Your task to perform on an android device: turn off improve location accuracy Image 0: 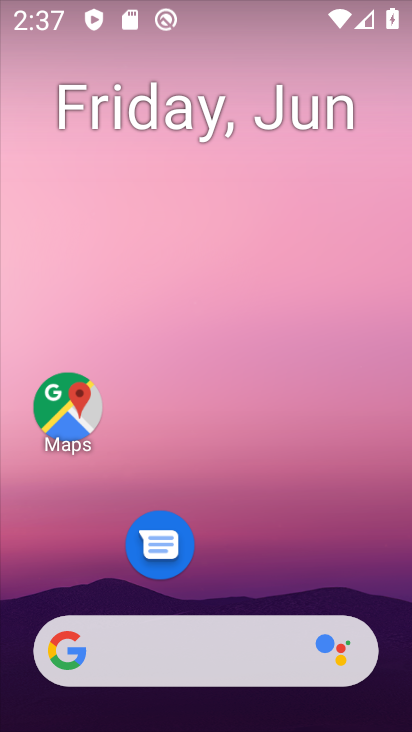
Step 0: drag from (248, 578) to (296, 7)
Your task to perform on an android device: turn off improve location accuracy Image 1: 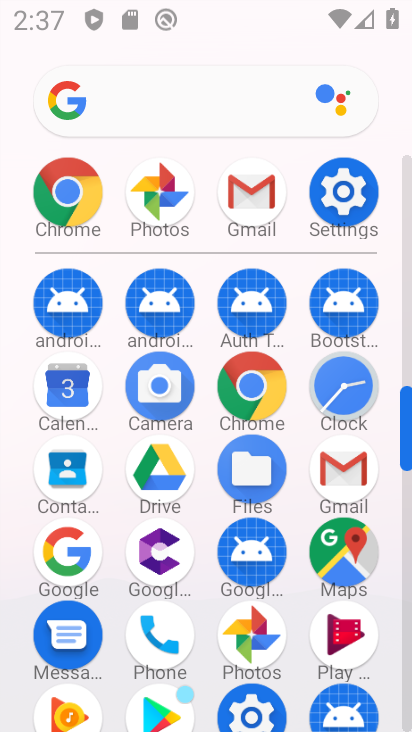
Step 1: drag from (239, 578) to (292, 8)
Your task to perform on an android device: turn off improve location accuracy Image 2: 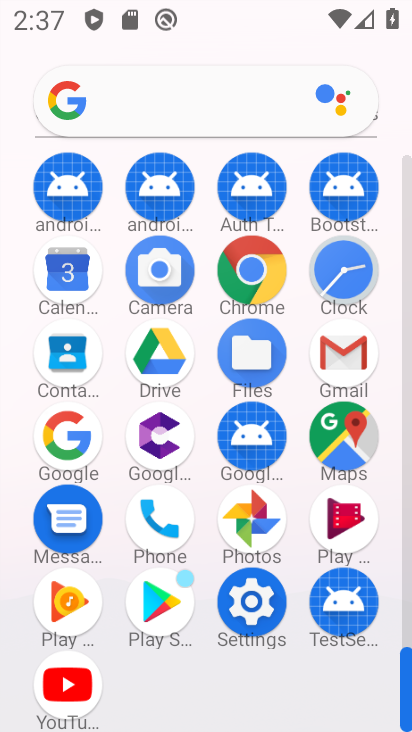
Step 2: click (342, 348)
Your task to perform on an android device: turn off improve location accuracy Image 3: 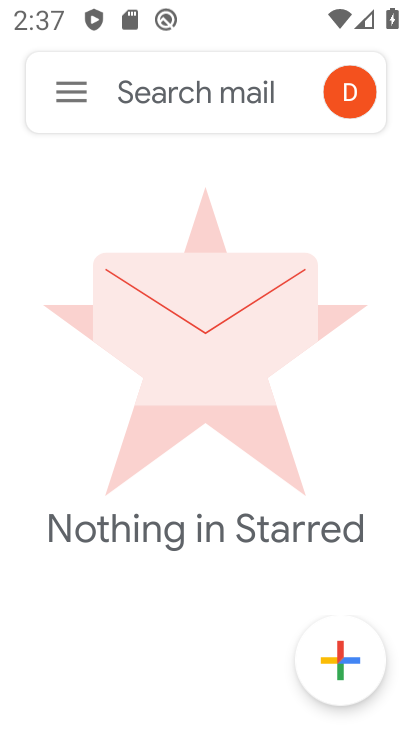
Step 3: click (70, 103)
Your task to perform on an android device: turn off improve location accuracy Image 4: 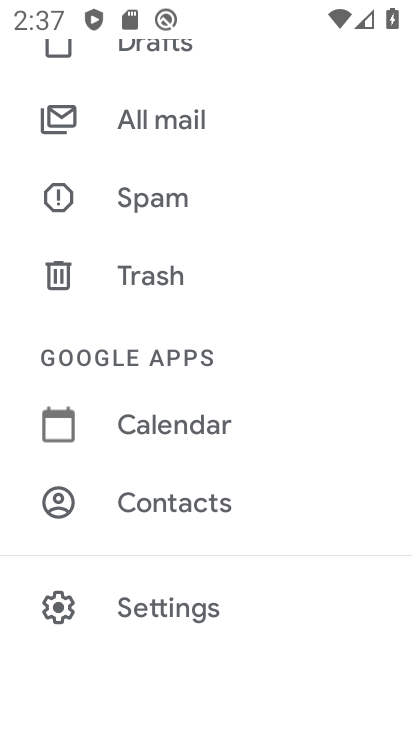
Step 4: click (153, 615)
Your task to perform on an android device: turn off improve location accuracy Image 5: 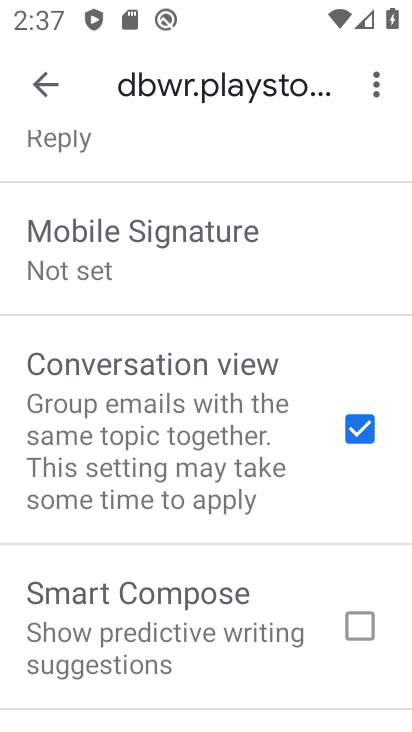
Step 5: press home button
Your task to perform on an android device: turn off improve location accuracy Image 6: 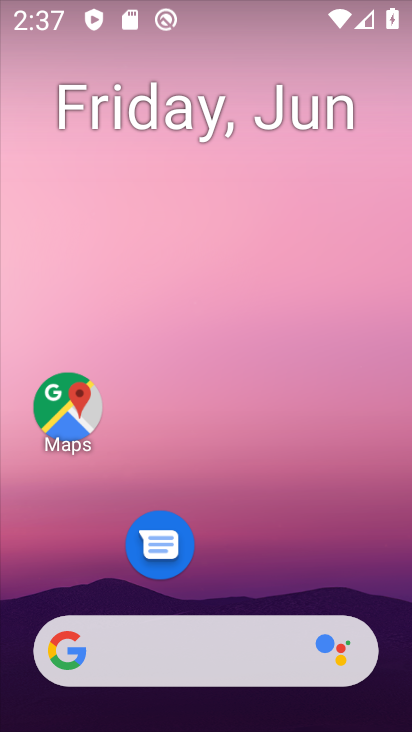
Step 6: drag from (252, 583) to (315, 14)
Your task to perform on an android device: turn off improve location accuracy Image 7: 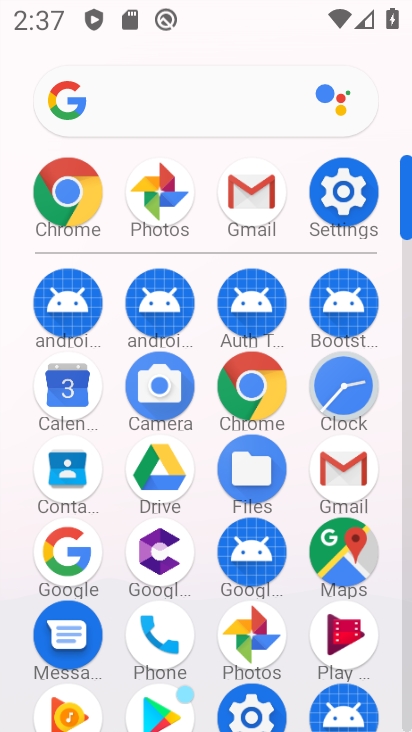
Step 7: drag from (194, 604) to (199, 161)
Your task to perform on an android device: turn off improve location accuracy Image 8: 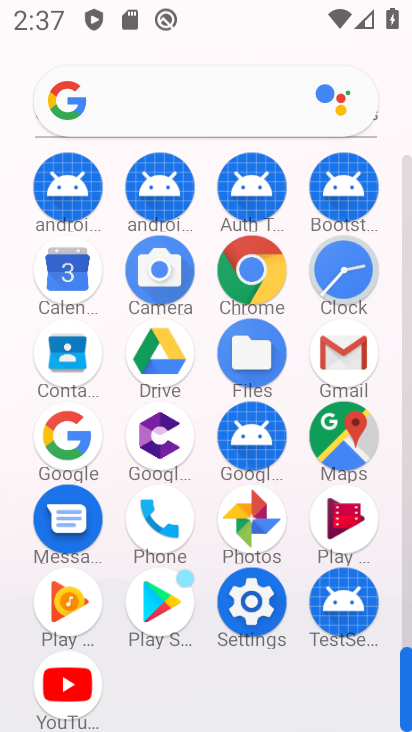
Step 8: click (262, 640)
Your task to perform on an android device: turn off improve location accuracy Image 9: 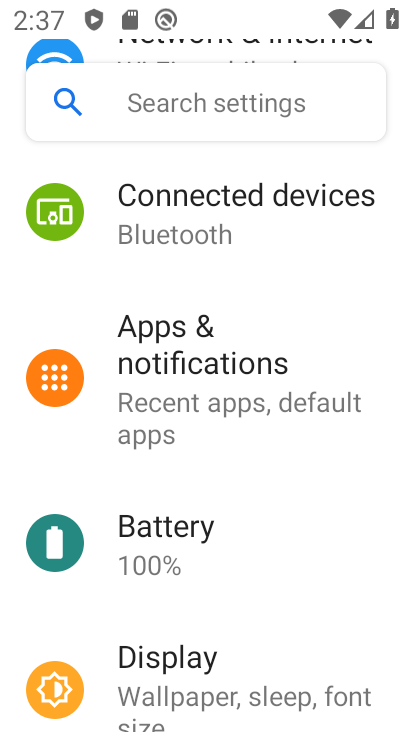
Step 9: drag from (241, 593) to (268, 219)
Your task to perform on an android device: turn off improve location accuracy Image 10: 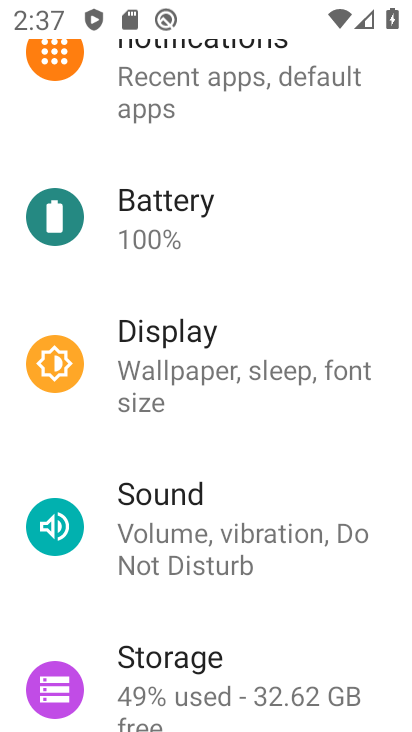
Step 10: drag from (209, 609) to (242, 187)
Your task to perform on an android device: turn off improve location accuracy Image 11: 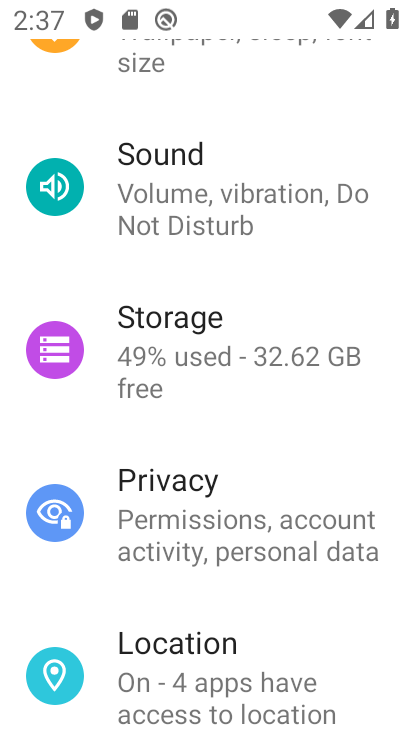
Step 11: drag from (216, 650) to (246, 414)
Your task to perform on an android device: turn off improve location accuracy Image 12: 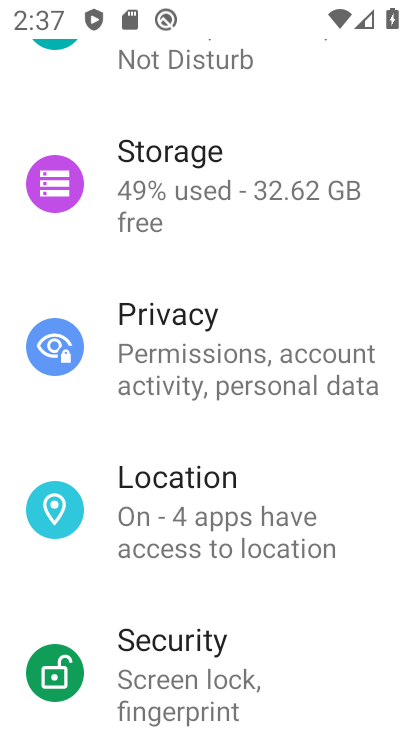
Step 12: click (190, 527)
Your task to perform on an android device: turn off improve location accuracy Image 13: 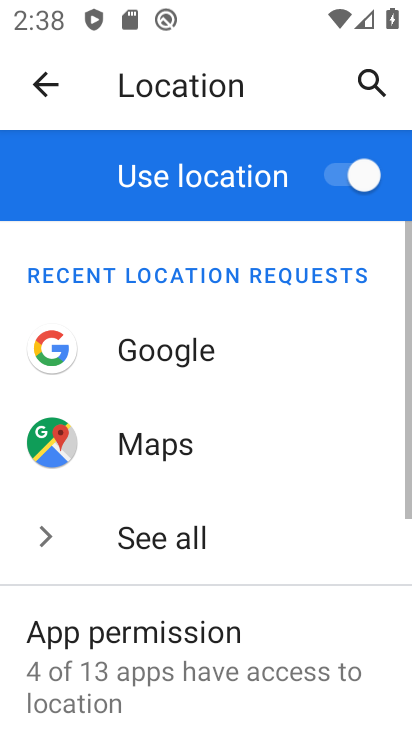
Step 13: drag from (165, 650) to (310, 96)
Your task to perform on an android device: turn off improve location accuracy Image 14: 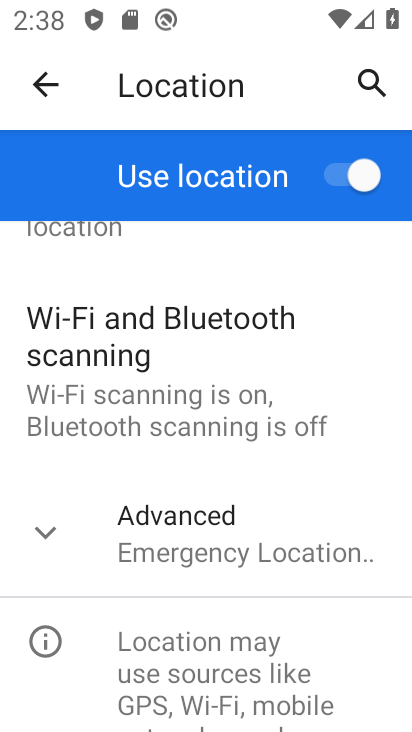
Step 14: drag from (264, 594) to (296, 395)
Your task to perform on an android device: turn off improve location accuracy Image 15: 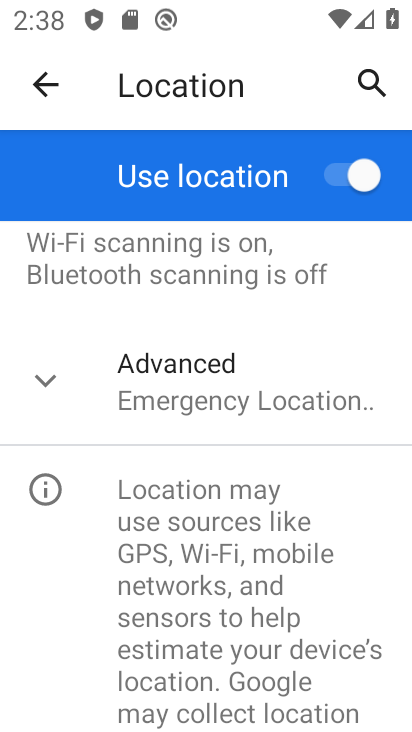
Step 15: click (144, 531)
Your task to perform on an android device: turn off improve location accuracy Image 16: 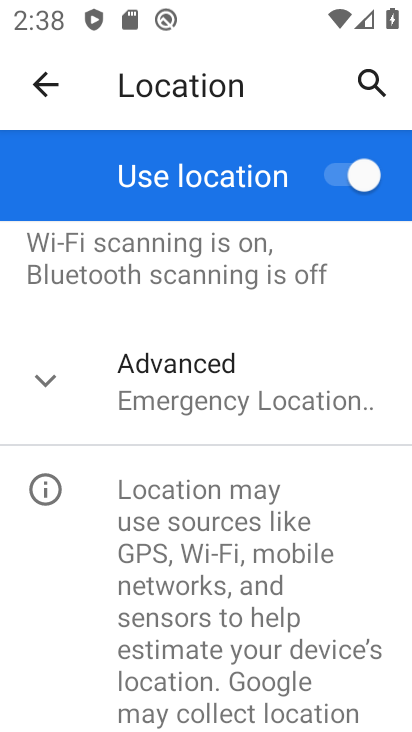
Step 16: click (204, 396)
Your task to perform on an android device: turn off improve location accuracy Image 17: 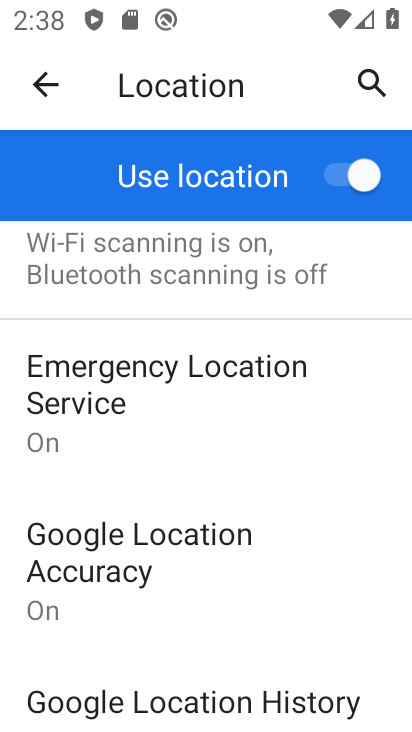
Step 17: click (174, 566)
Your task to perform on an android device: turn off improve location accuracy Image 18: 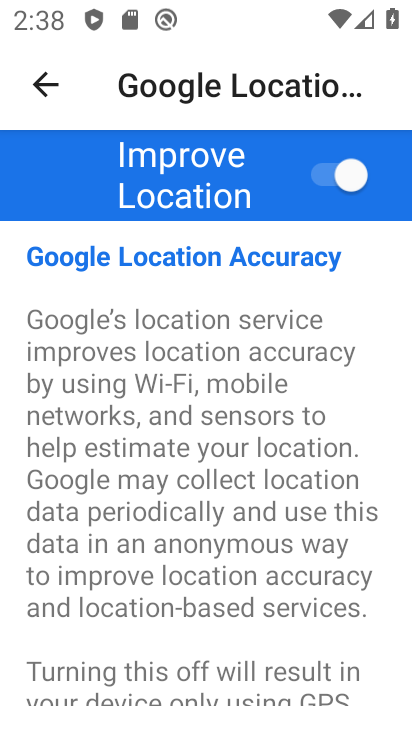
Step 18: click (334, 183)
Your task to perform on an android device: turn off improve location accuracy Image 19: 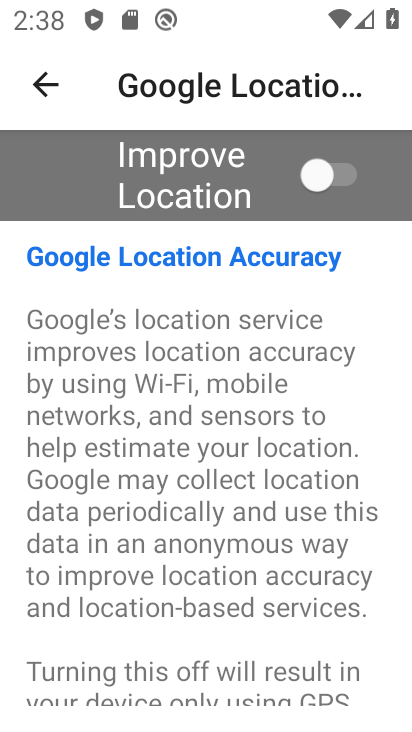
Step 19: task complete